Your task to perform on an android device: toggle pop-ups in chrome Image 0: 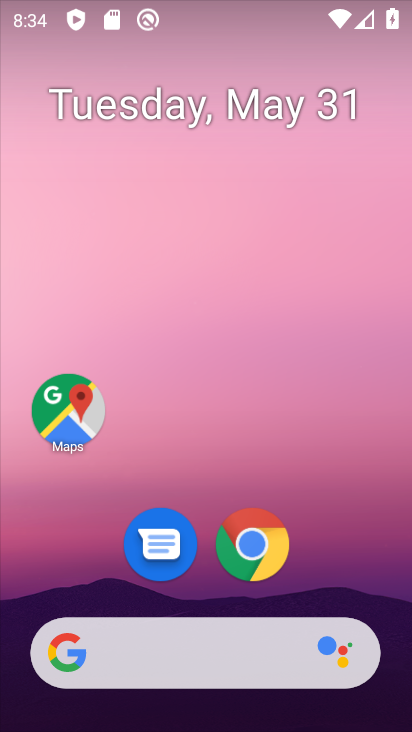
Step 0: click (279, 568)
Your task to perform on an android device: toggle pop-ups in chrome Image 1: 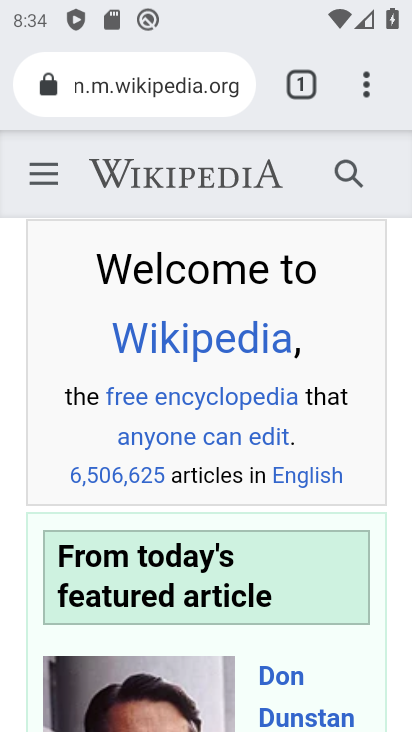
Step 1: drag from (374, 87) to (126, 588)
Your task to perform on an android device: toggle pop-ups in chrome Image 2: 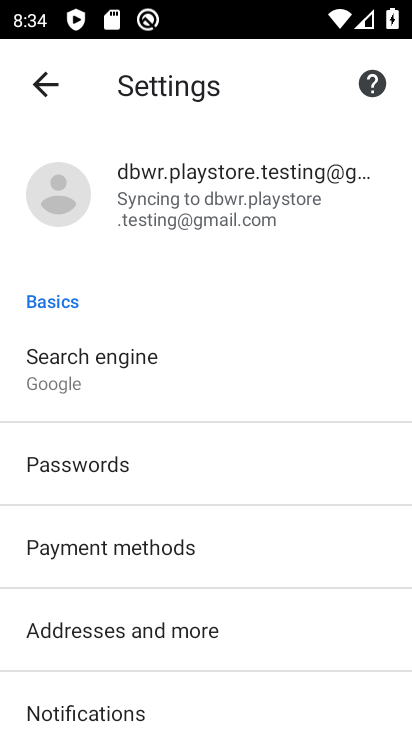
Step 2: drag from (200, 686) to (193, 263)
Your task to perform on an android device: toggle pop-ups in chrome Image 3: 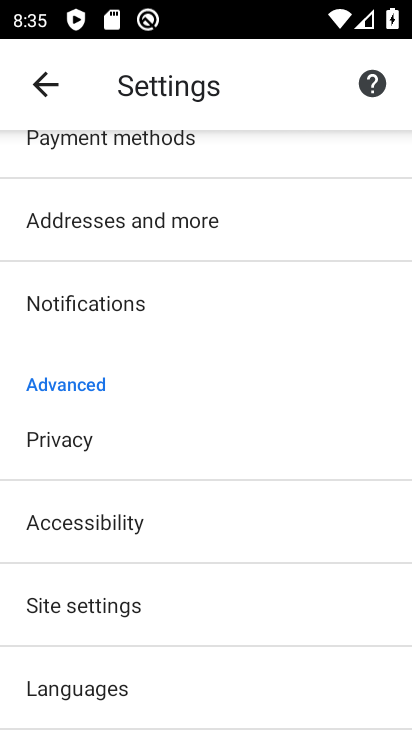
Step 3: click (178, 611)
Your task to perform on an android device: toggle pop-ups in chrome Image 4: 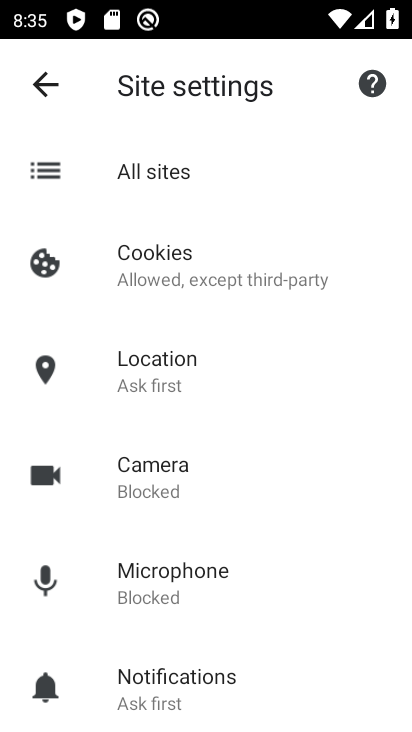
Step 4: drag from (196, 520) to (184, 162)
Your task to perform on an android device: toggle pop-ups in chrome Image 5: 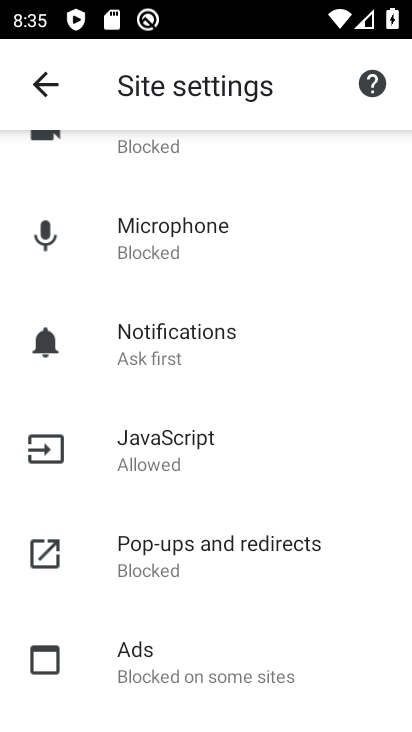
Step 5: click (184, 579)
Your task to perform on an android device: toggle pop-ups in chrome Image 6: 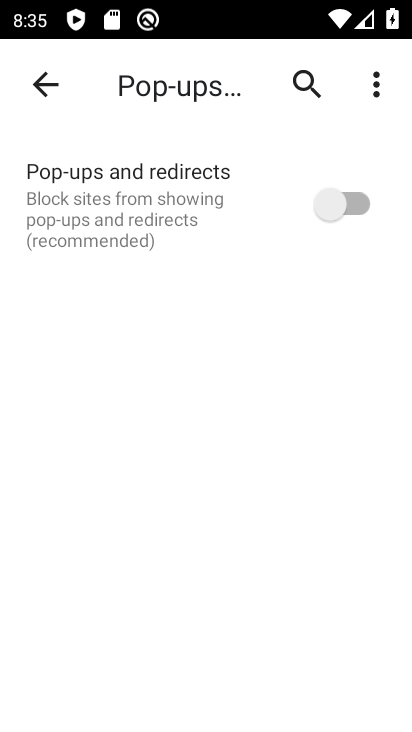
Step 6: click (356, 201)
Your task to perform on an android device: toggle pop-ups in chrome Image 7: 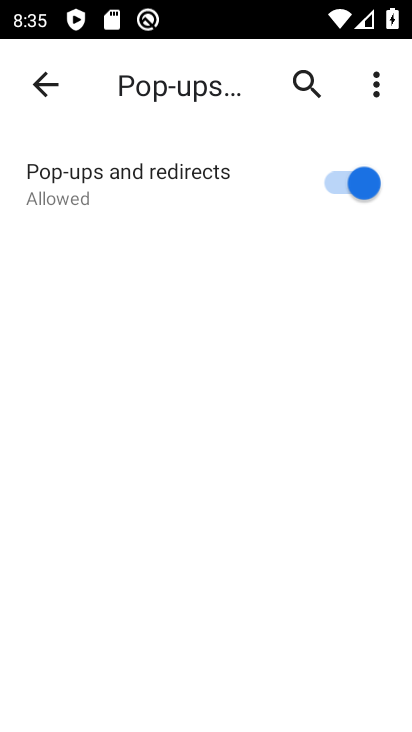
Step 7: task complete